Your task to perform on an android device: empty trash in the gmail app Image 0: 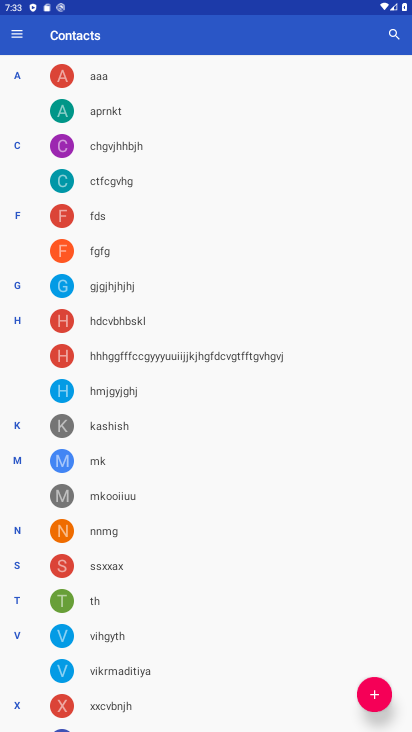
Step 0: press home button
Your task to perform on an android device: empty trash in the gmail app Image 1: 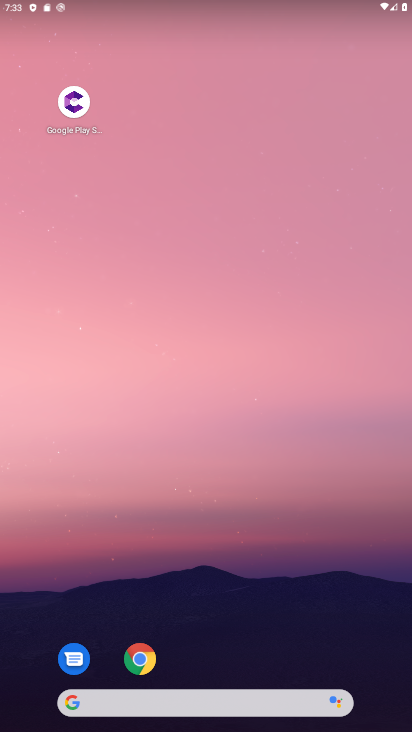
Step 1: drag from (195, 609) to (247, 320)
Your task to perform on an android device: empty trash in the gmail app Image 2: 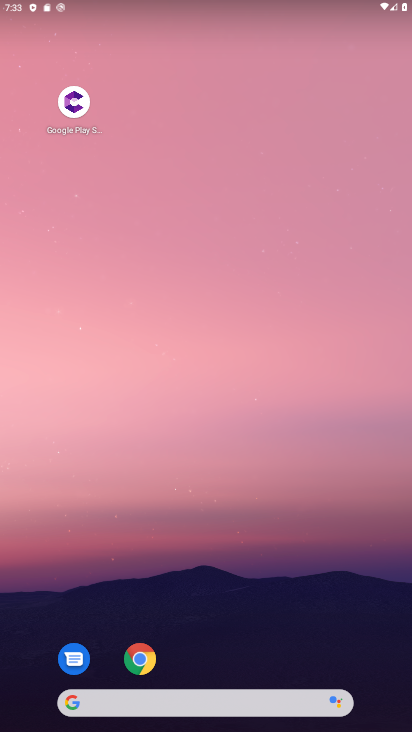
Step 2: drag from (230, 544) to (240, 175)
Your task to perform on an android device: empty trash in the gmail app Image 3: 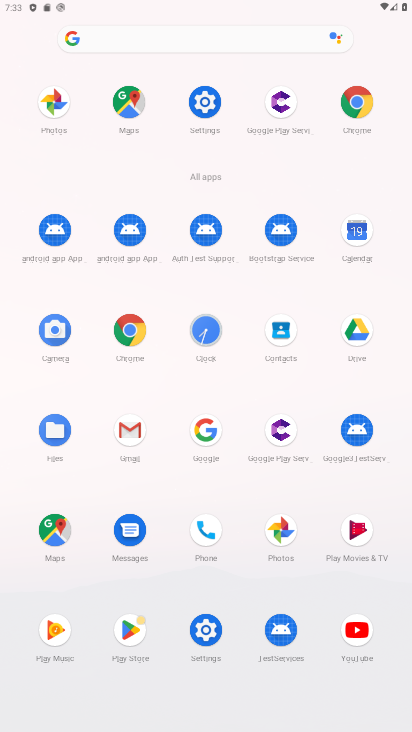
Step 3: click (140, 414)
Your task to perform on an android device: empty trash in the gmail app Image 4: 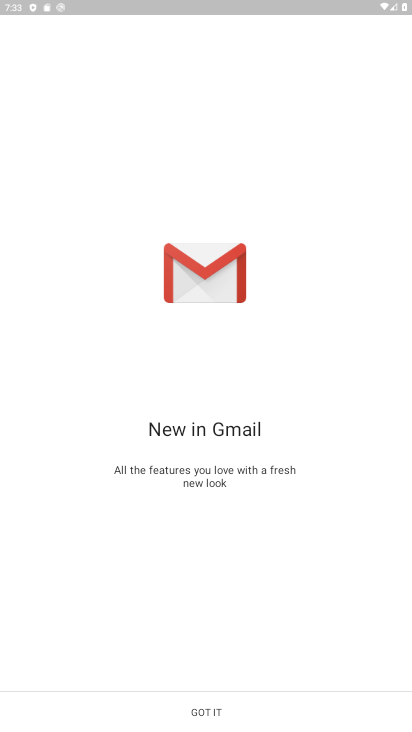
Step 4: click (214, 709)
Your task to perform on an android device: empty trash in the gmail app Image 5: 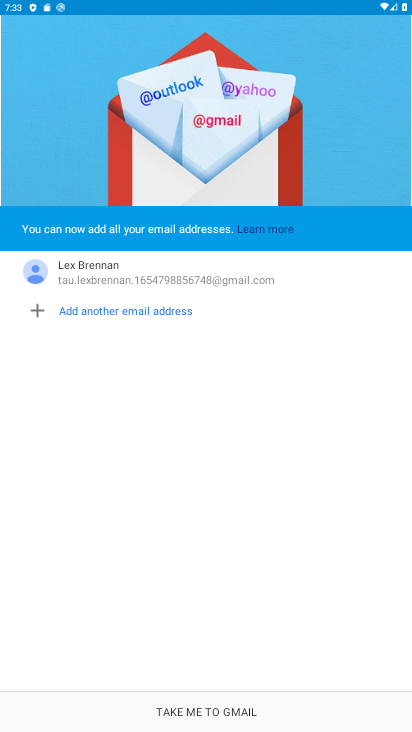
Step 5: click (214, 709)
Your task to perform on an android device: empty trash in the gmail app Image 6: 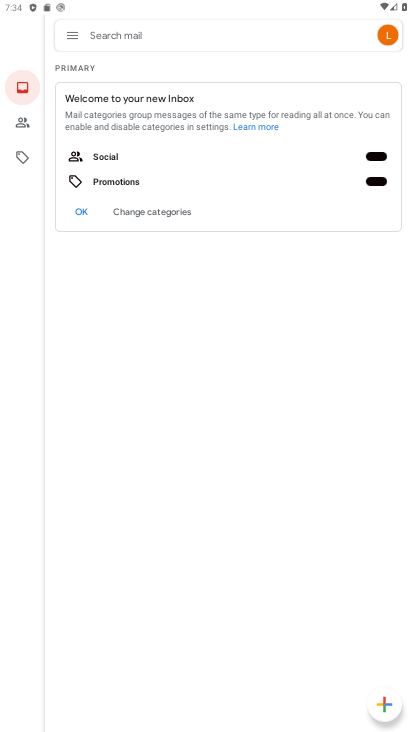
Step 6: click (74, 35)
Your task to perform on an android device: empty trash in the gmail app Image 7: 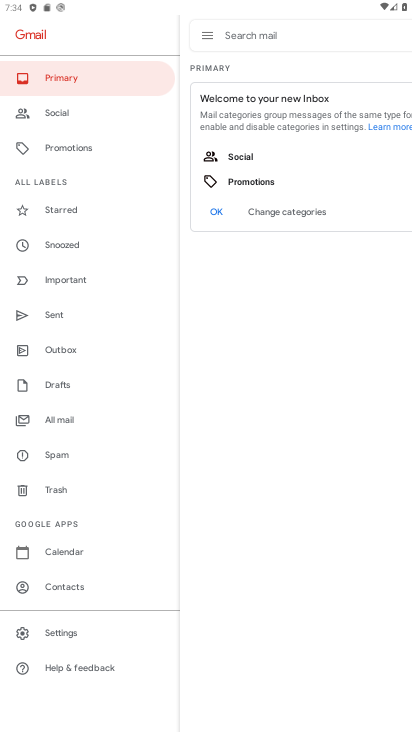
Step 7: click (66, 487)
Your task to perform on an android device: empty trash in the gmail app Image 8: 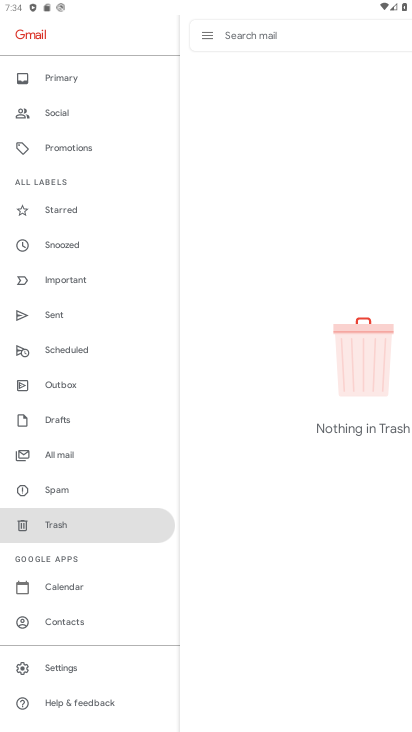
Step 8: task complete